Your task to perform on an android device: turn on notifications settings in the gmail app Image 0: 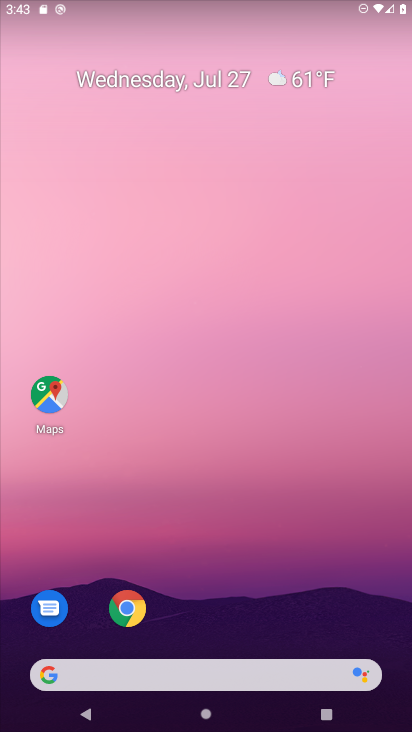
Step 0: drag from (186, 725) to (186, 226)
Your task to perform on an android device: turn on notifications settings in the gmail app Image 1: 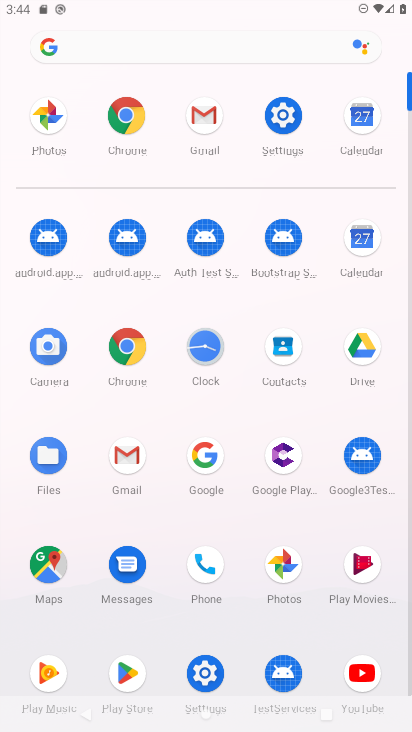
Step 1: click (136, 452)
Your task to perform on an android device: turn on notifications settings in the gmail app Image 2: 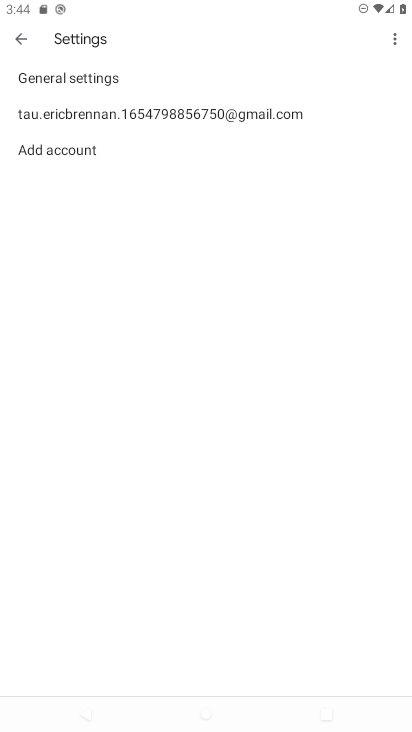
Step 2: click (141, 112)
Your task to perform on an android device: turn on notifications settings in the gmail app Image 3: 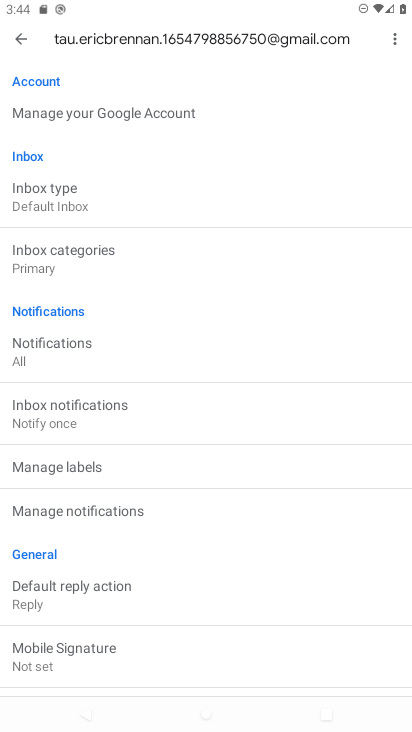
Step 3: task complete